Your task to perform on an android device: Go to display settings Image 0: 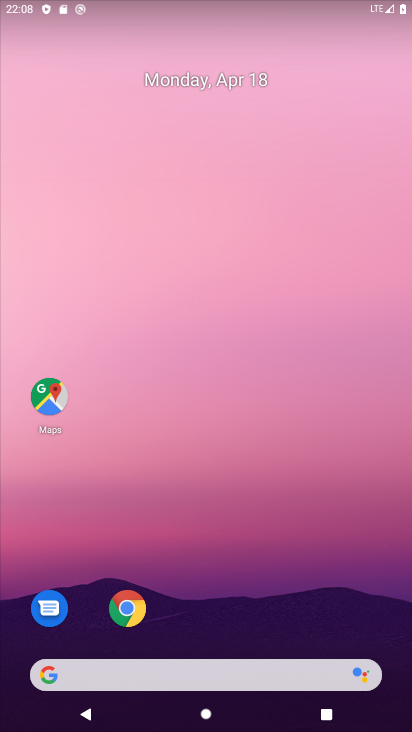
Step 0: click (52, 399)
Your task to perform on an android device: Go to display settings Image 1: 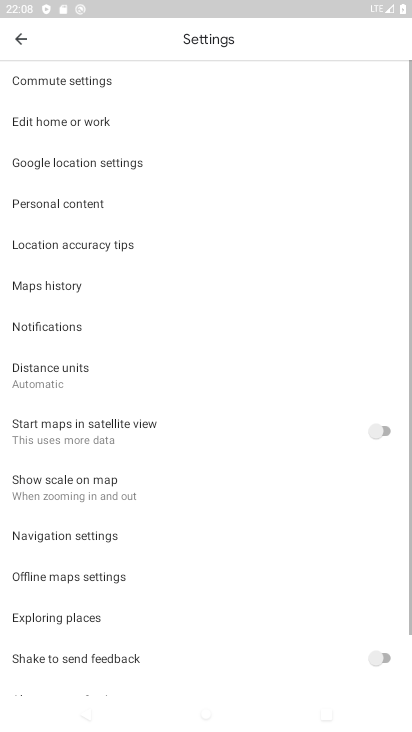
Step 1: press home button
Your task to perform on an android device: Go to display settings Image 2: 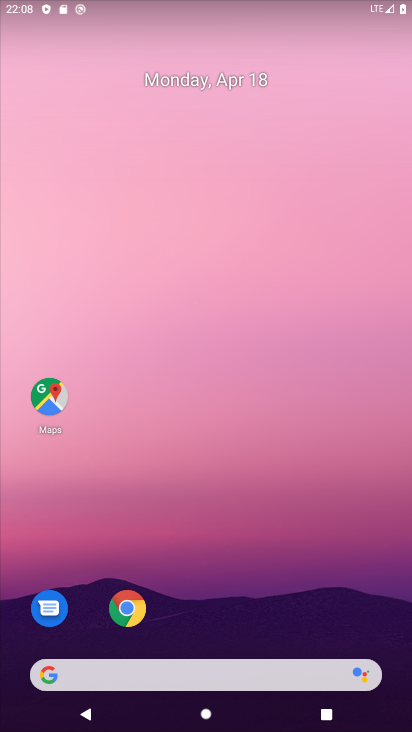
Step 2: drag from (228, 190) to (228, 72)
Your task to perform on an android device: Go to display settings Image 3: 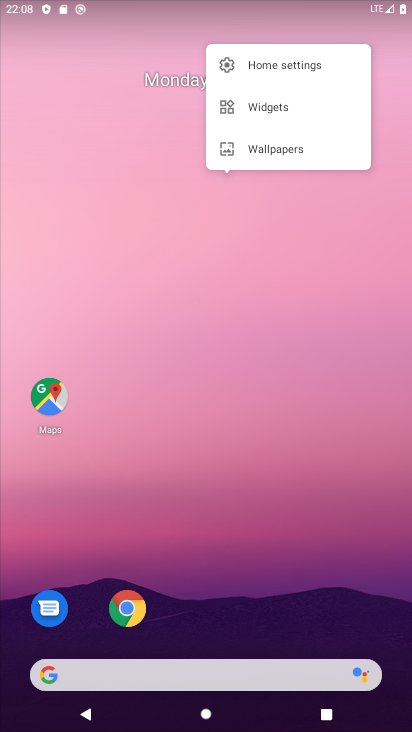
Step 3: drag from (222, 489) to (168, 70)
Your task to perform on an android device: Go to display settings Image 4: 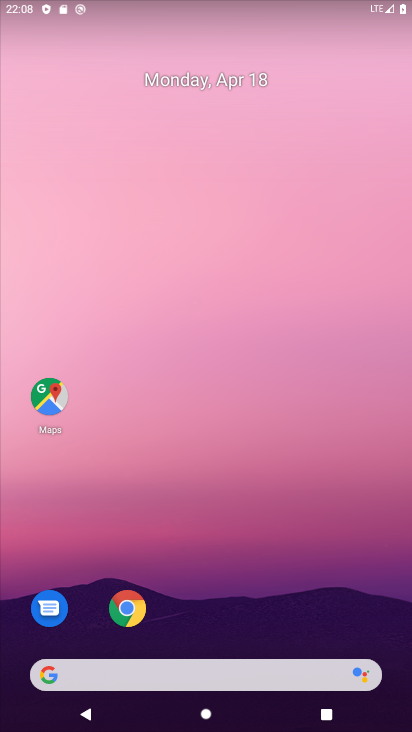
Step 4: drag from (216, 620) to (234, 65)
Your task to perform on an android device: Go to display settings Image 5: 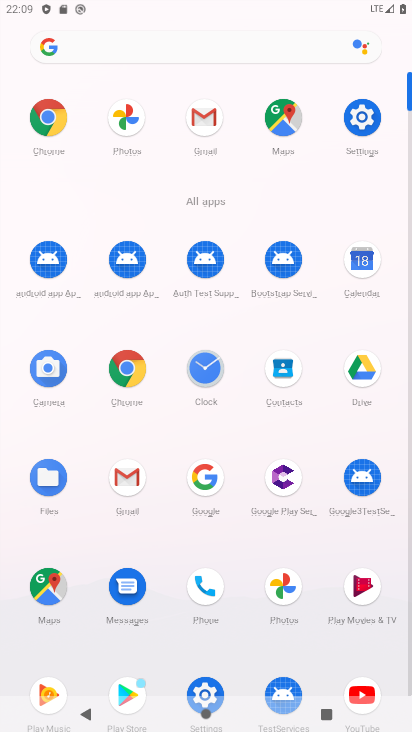
Step 5: click (361, 123)
Your task to perform on an android device: Go to display settings Image 6: 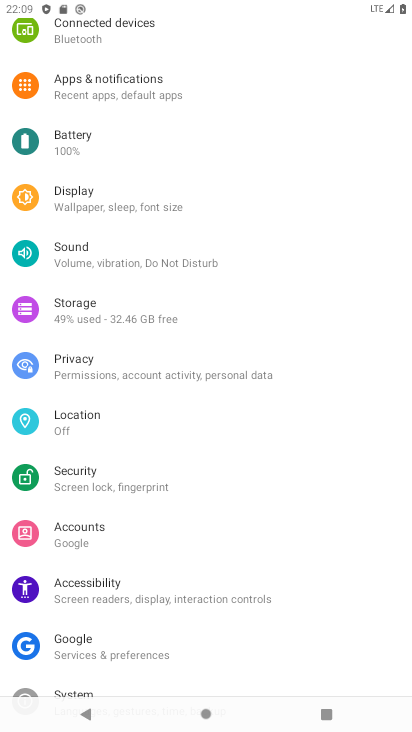
Step 6: click (126, 204)
Your task to perform on an android device: Go to display settings Image 7: 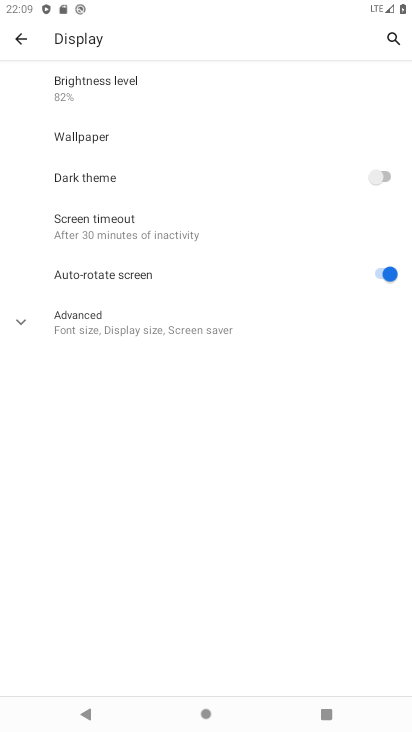
Step 7: click (139, 320)
Your task to perform on an android device: Go to display settings Image 8: 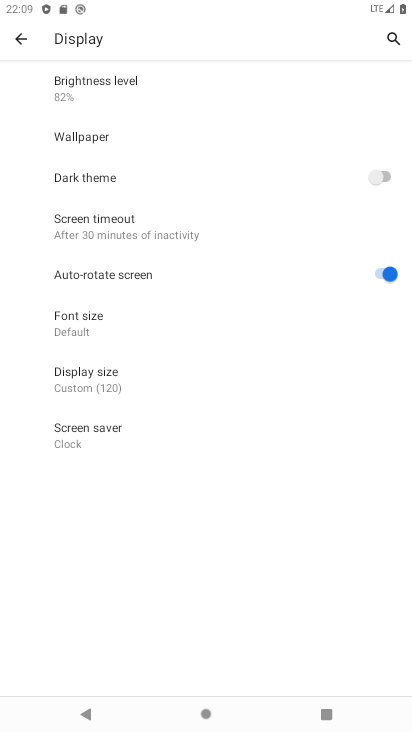
Step 8: task complete